Your task to perform on an android device: turn smart compose on in the gmail app Image 0: 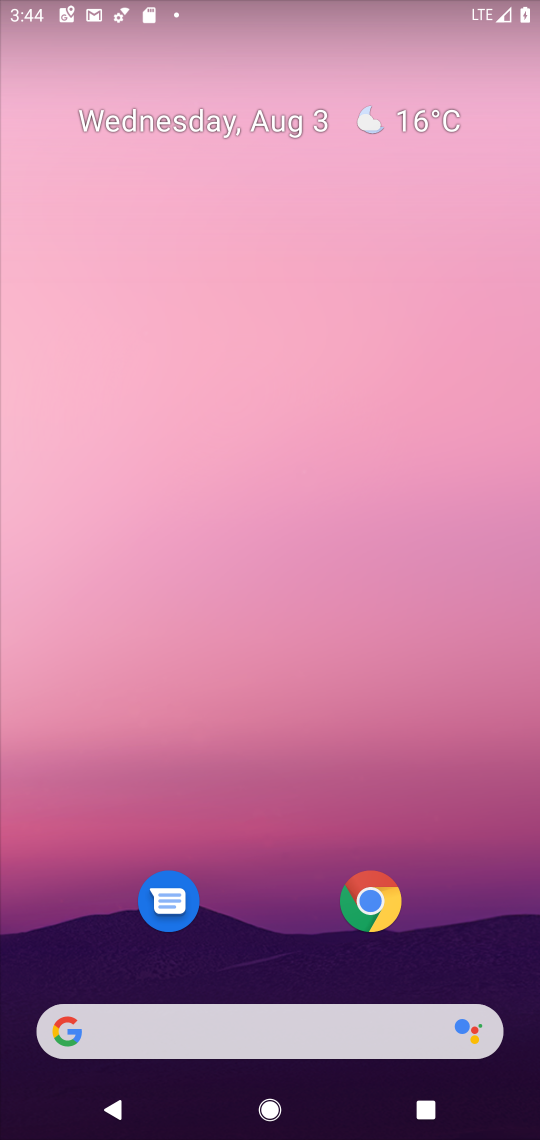
Step 0: drag from (311, 491) to (303, 121)
Your task to perform on an android device: turn smart compose on in the gmail app Image 1: 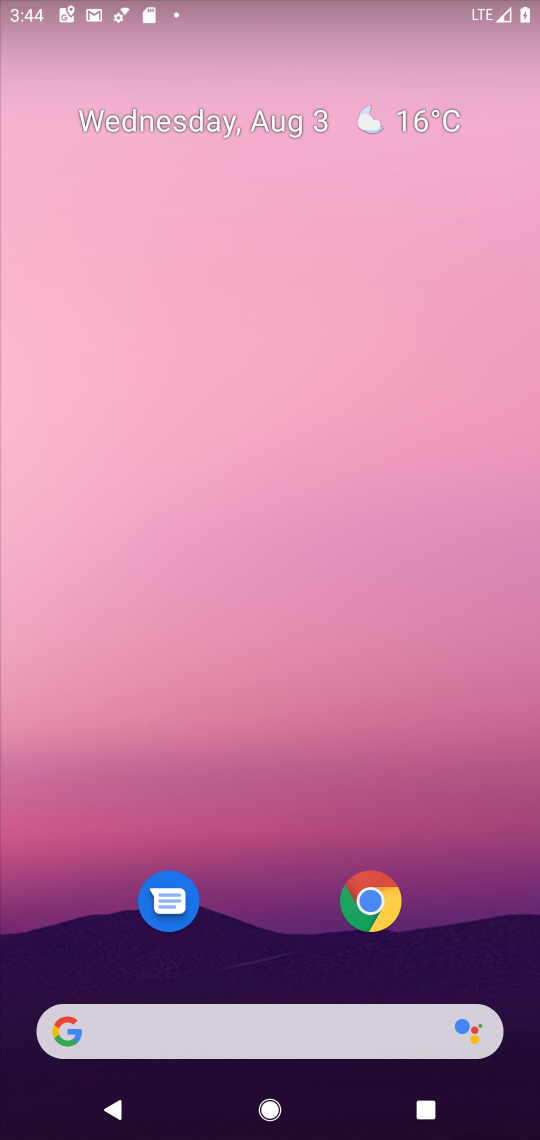
Step 1: drag from (163, 903) to (194, 306)
Your task to perform on an android device: turn smart compose on in the gmail app Image 2: 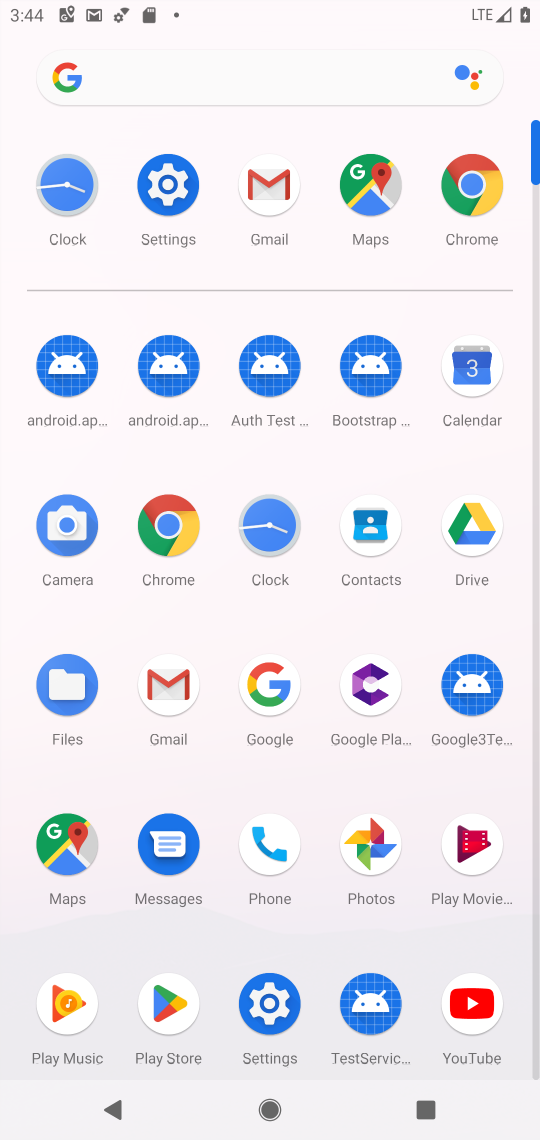
Step 2: click (248, 177)
Your task to perform on an android device: turn smart compose on in the gmail app Image 3: 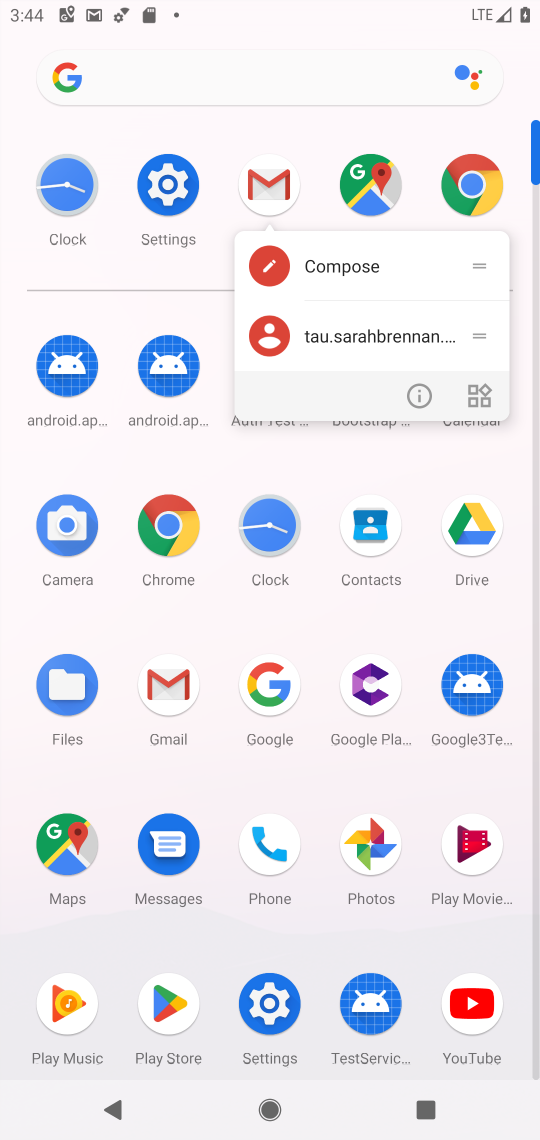
Step 3: click (255, 172)
Your task to perform on an android device: turn smart compose on in the gmail app Image 4: 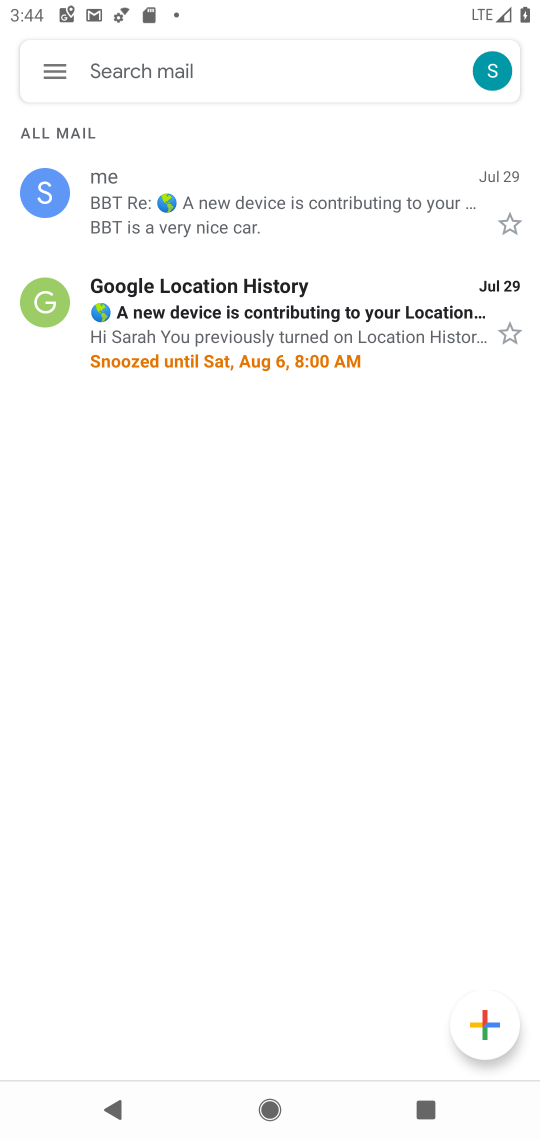
Step 4: click (49, 57)
Your task to perform on an android device: turn smart compose on in the gmail app Image 5: 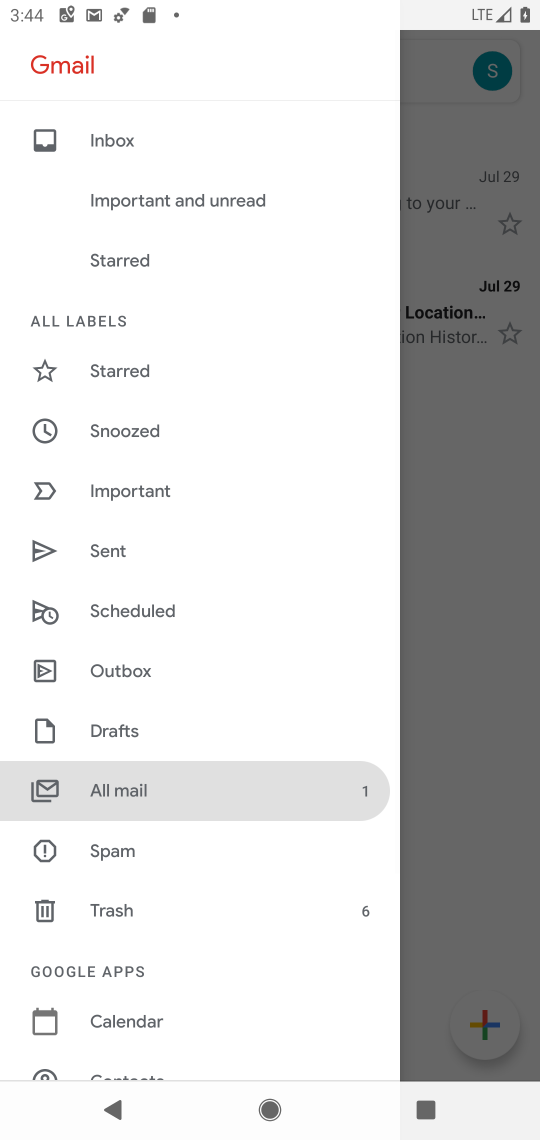
Step 5: drag from (144, 960) to (200, 418)
Your task to perform on an android device: turn smart compose on in the gmail app Image 6: 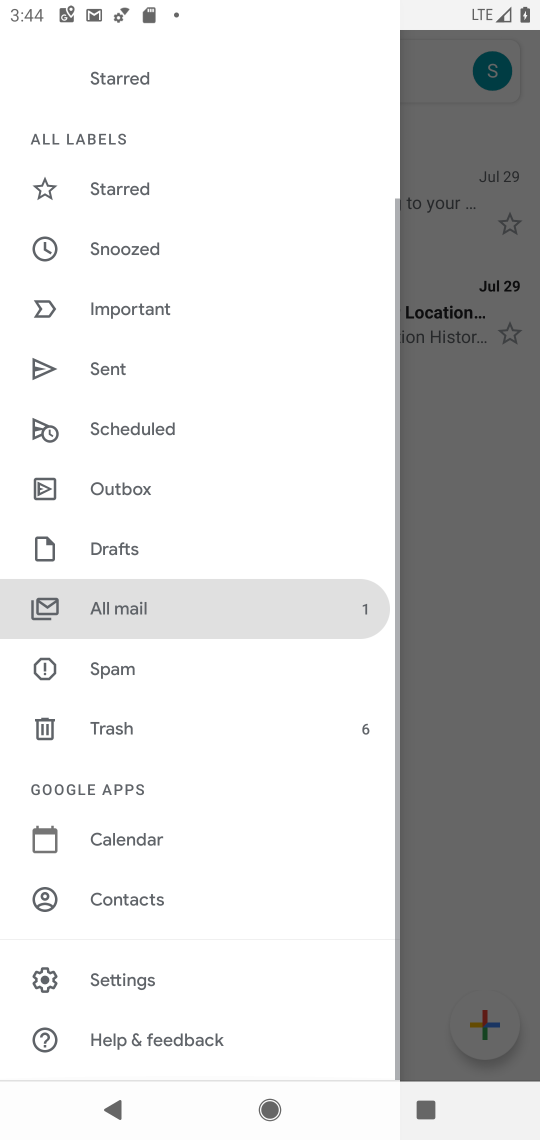
Step 6: click (123, 984)
Your task to perform on an android device: turn smart compose on in the gmail app Image 7: 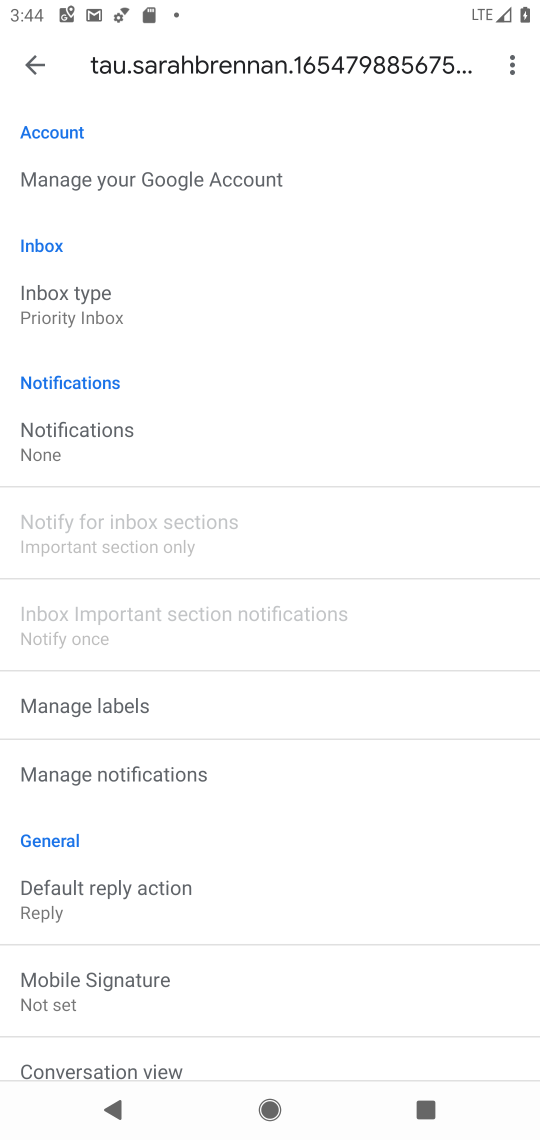
Step 7: drag from (193, 950) to (223, 305)
Your task to perform on an android device: turn smart compose on in the gmail app Image 8: 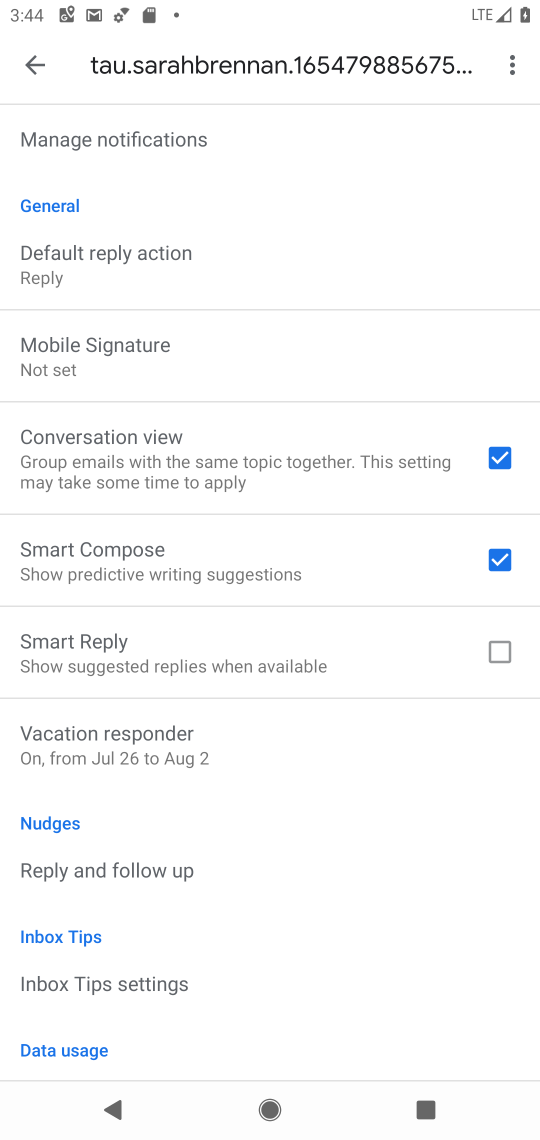
Step 8: click (515, 547)
Your task to perform on an android device: turn smart compose on in the gmail app Image 9: 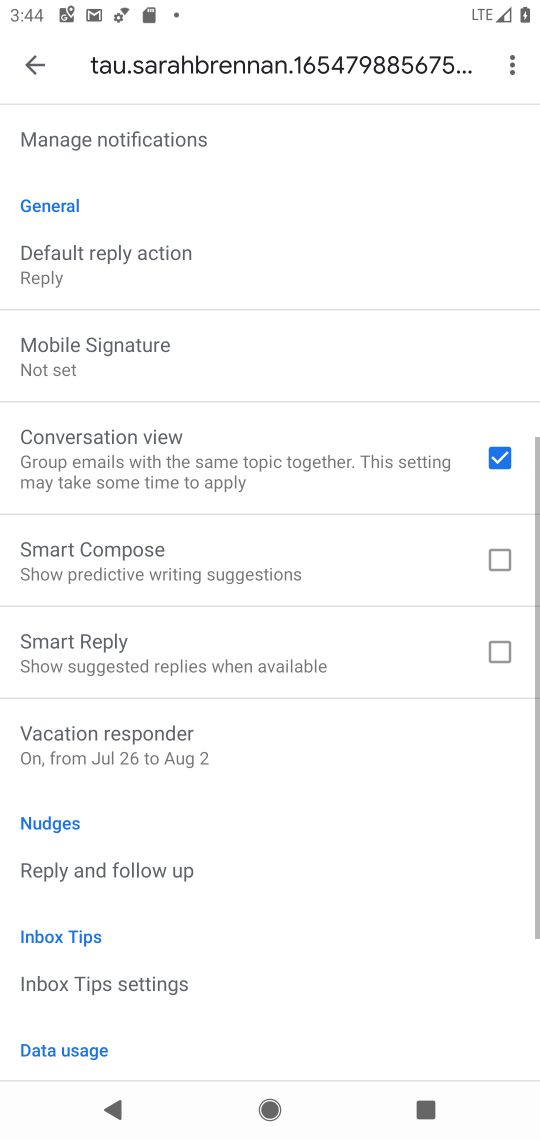
Step 9: click (505, 557)
Your task to perform on an android device: turn smart compose on in the gmail app Image 10: 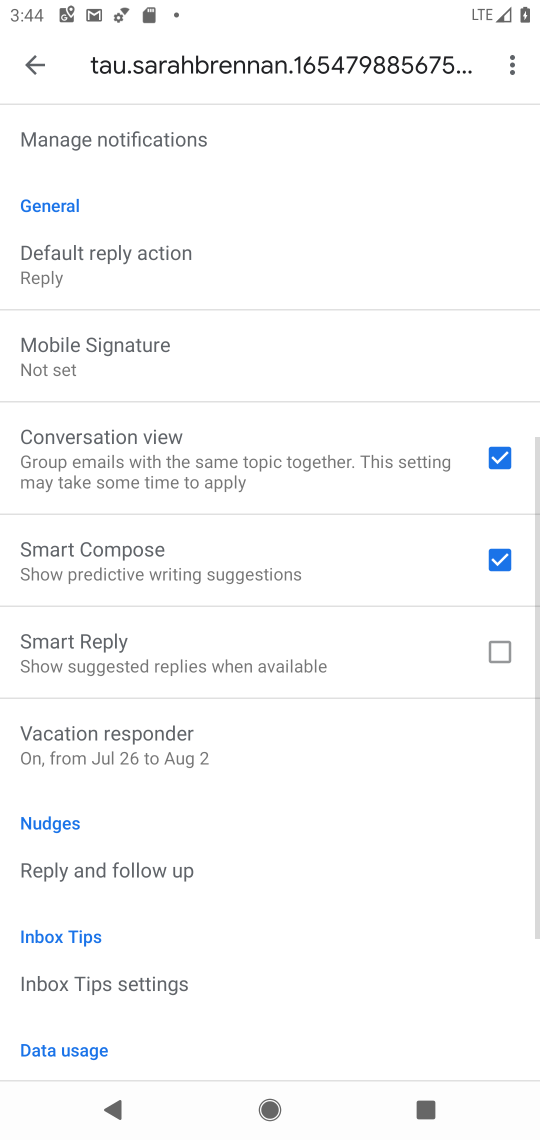
Step 10: task complete